Your task to perform on an android device: Open the stopwatch Image 0: 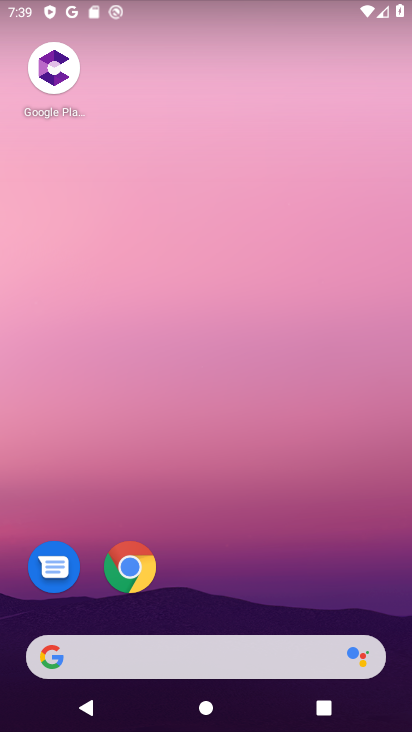
Step 0: drag from (188, 622) to (267, 68)
Your task to perform on an android device: Open the stopwatch Image 1: 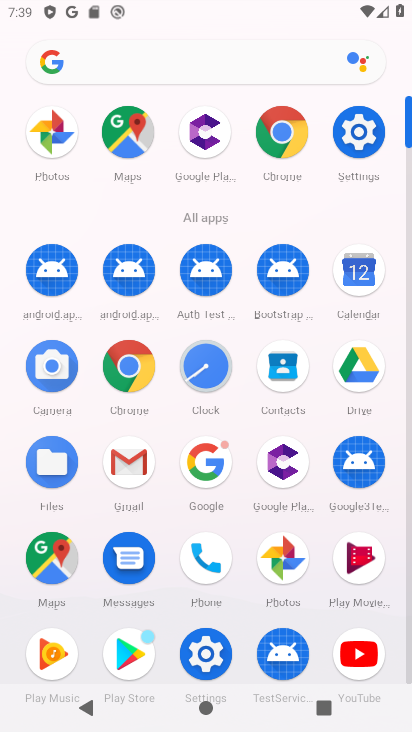
Step 1: click (204, 390)
Your task to perform on an android device: Open the stopwatch Image 2: 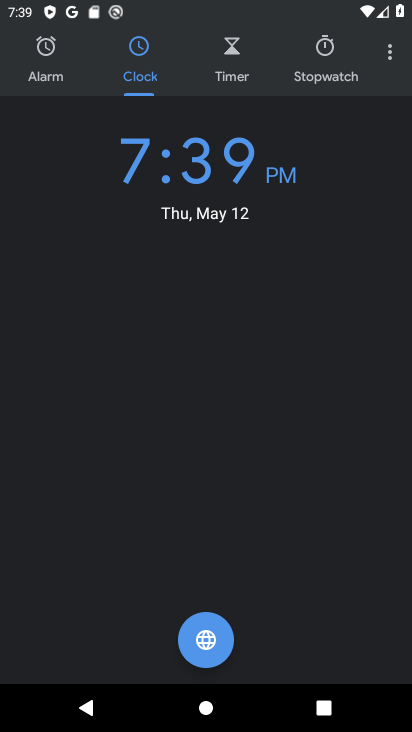
Step 2: click (330, 65)
Your task to perform on an android device: Open the stopwatch Image 3: 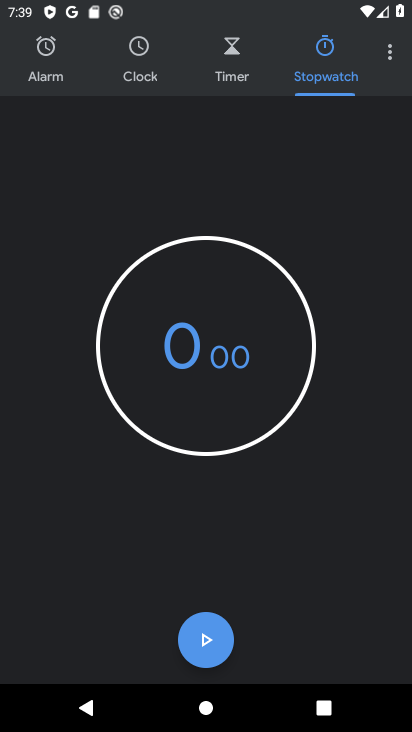
Step 3: task complete